Your task to perform on an android device: turn smart compose on in the gmail app Image 0: 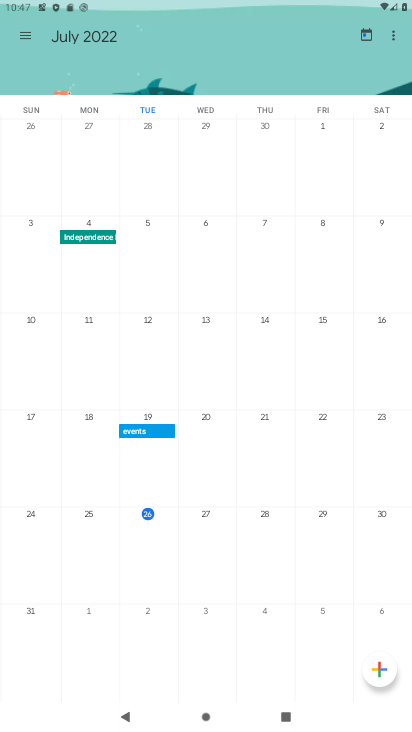
Step 0: press back button
Your task to perform on an android device: turn smart compose on in the gmail app Image 1: 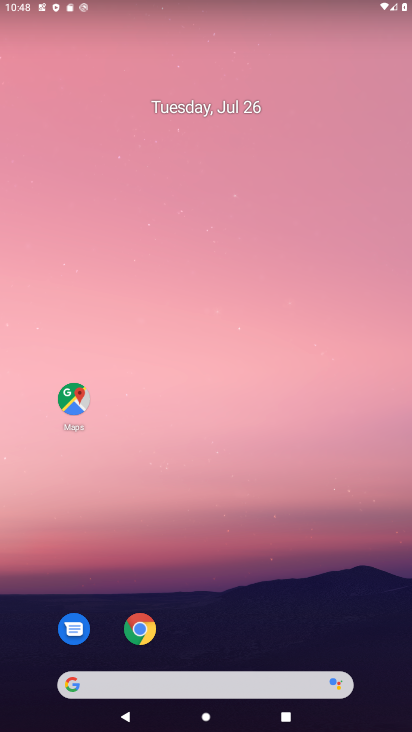
Step 1: drag from (175, 630) to (177, 104)
Your task to perform on an android device: turn smart compose on in the gmail app Image 2: 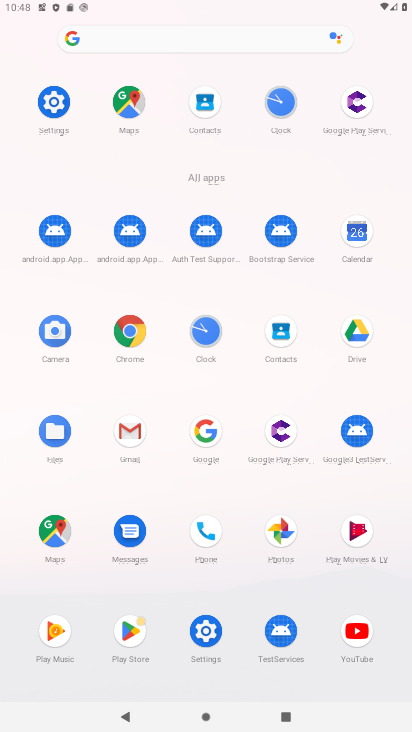
Step 2: click (135, 447)
Your task to perform on an android device: turn smart compose on in the gmail app Image 3: 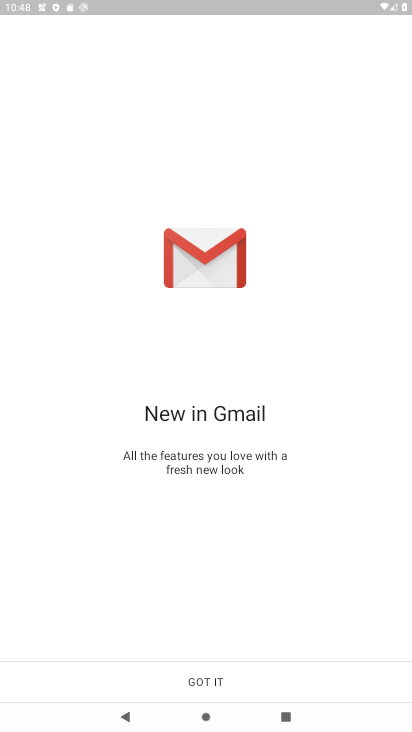
Step 3: click (199, 679)
Your task to perform on an android device: turn smart compose on in the gmail app Image 4: 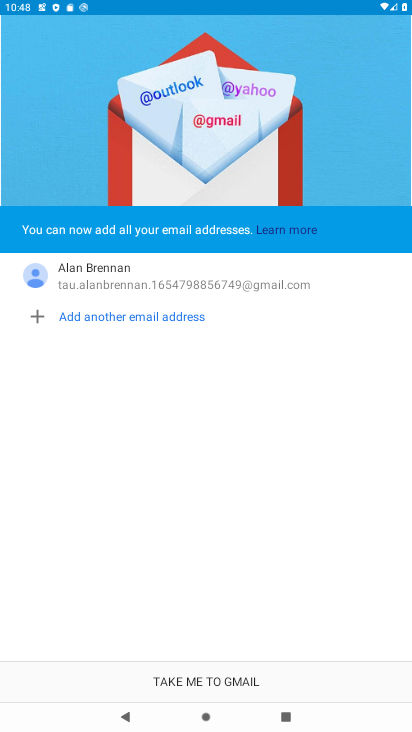
Step 4: click (199, 679)
Your task to perform on an android device: turn smart compose on in the gmail app Image 5: 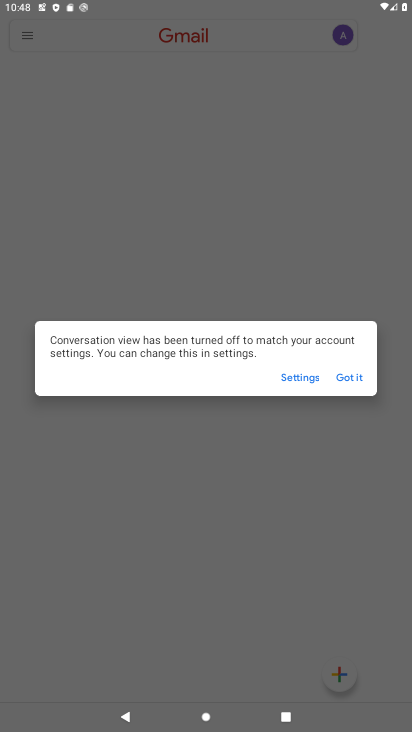
Step 5: click (349, 377)
Your task to perform on an android device: turn smart compose on in the gmail app Image 6: 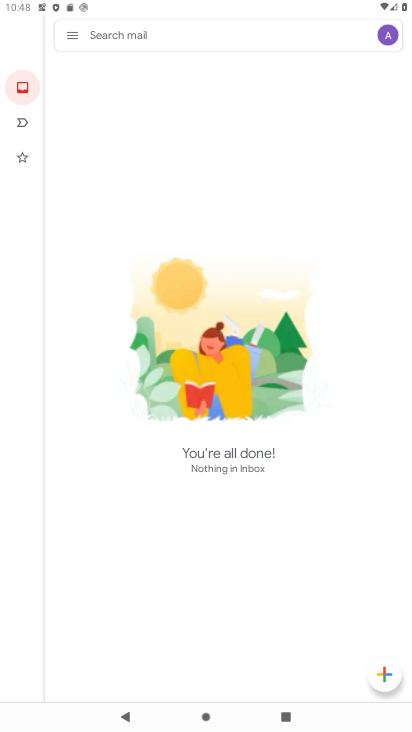
Step 6: click (73, 30)
Your task to perform on an android device: turn smart compose on in the gmail app Image 7: 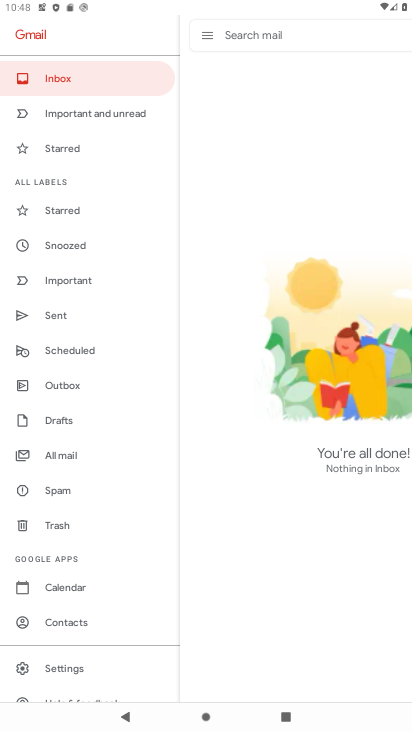
Step 7: click (52, 670)
Your task to perform on an android device: turn smart compose on in the gmail app Image 8: 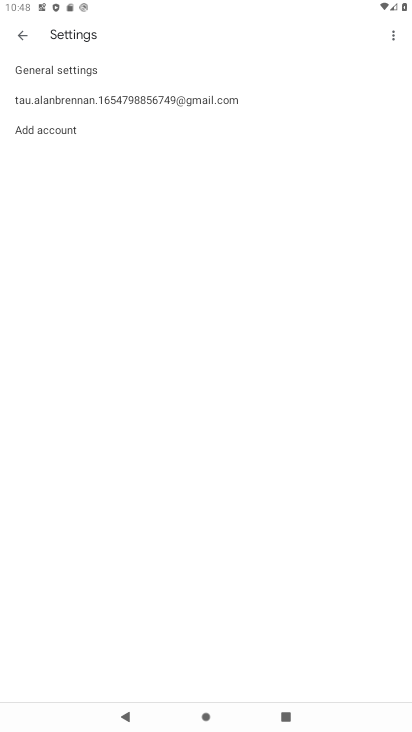
Step 8: click (139, 94)
Your task to perform on an android device: turn smart compose on in the gmail app Image 9: 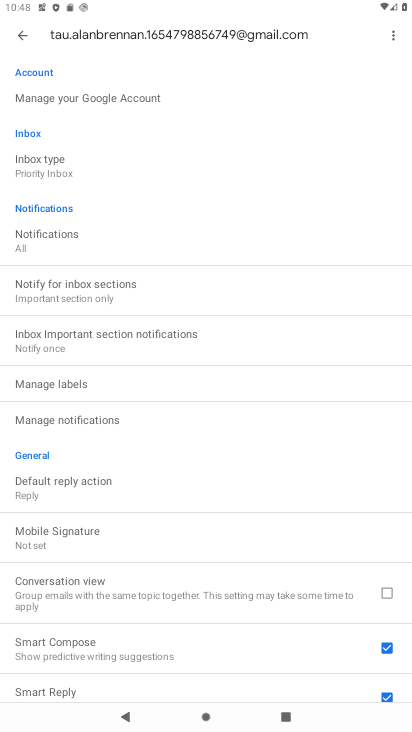
Step 9: task complete